Your task to perform on an android device: What's the weather going to be this weekend? Image 0: 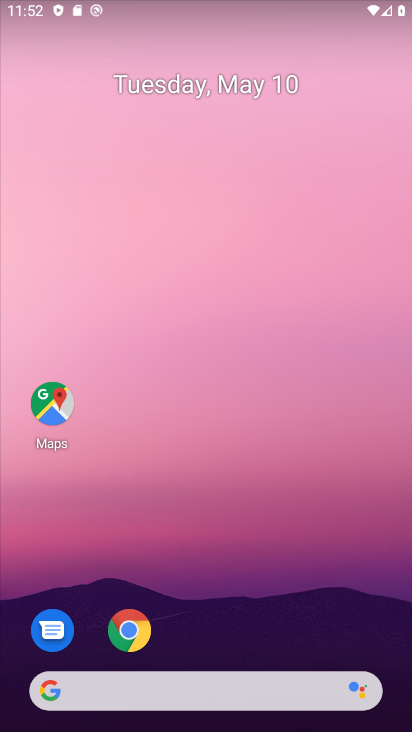
Step 0: click (201, 698)
Your task to perform on an android device: What's the weather going to be this weekend? Image 1: 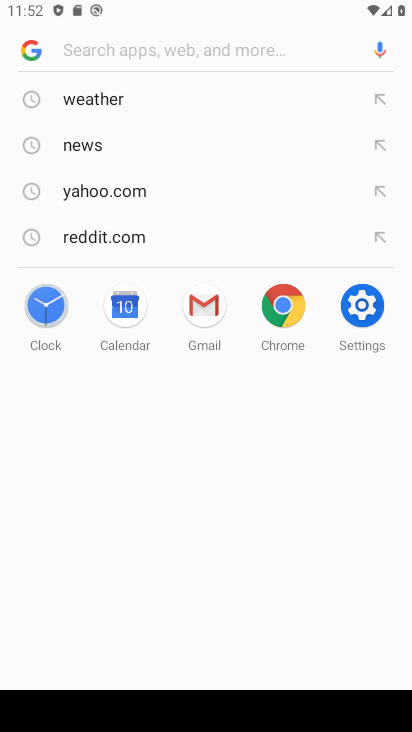
Step 1: click (95, 99)
Your task to perform on an android device: What's the weather going to be this weekend? Image 2: 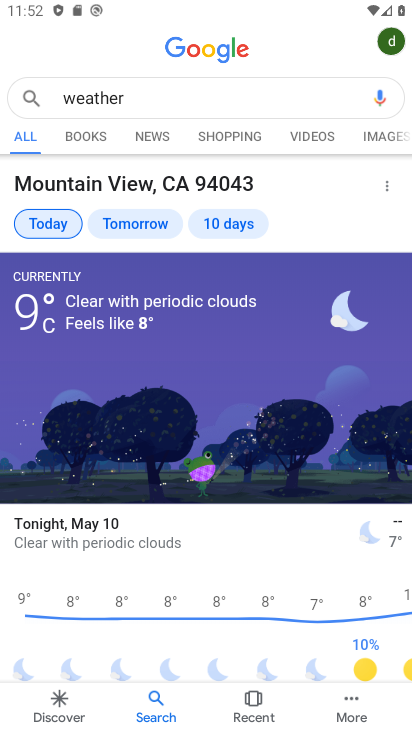
Step 2: task complete